Your task to perform on an android device: toggle wifi Image 0: 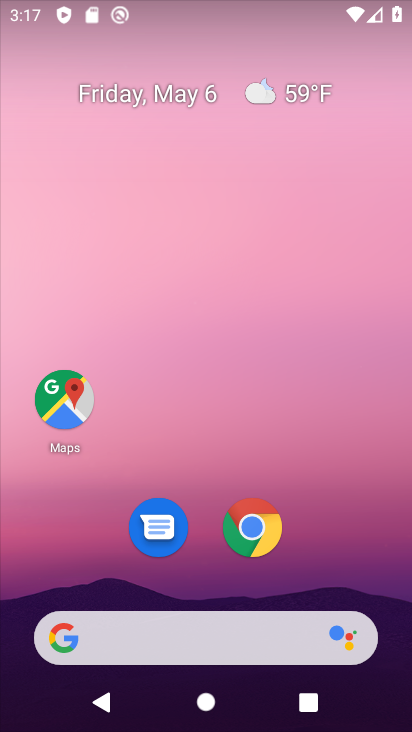
Step 0: drag from (316, 516) to (325, 120)
Your task to perform on an android device: toggle wifi Image 1: 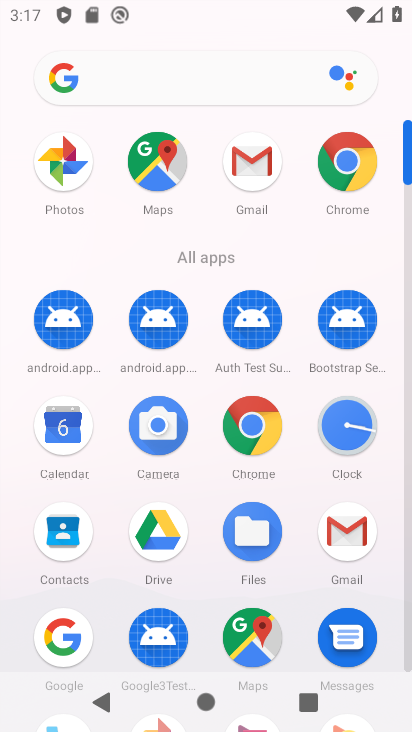
Step 1: drag from (269, 585) to (343, 75)
Your task to perform on an android device: toggle wifi Image 2: 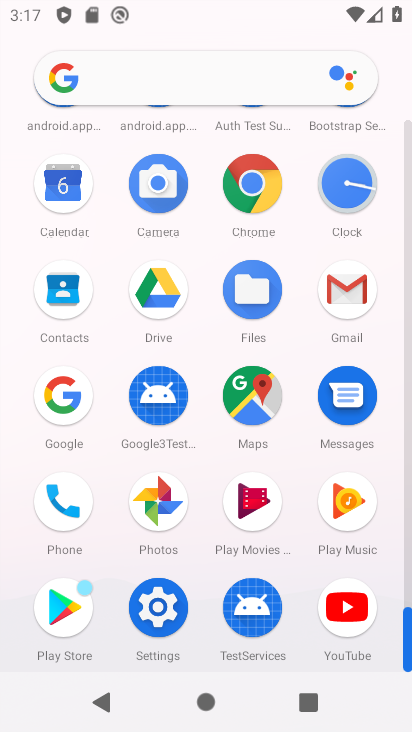
Step 2: click (157, 631)
Your task to perform on an android device: toggle wifi Image 3: 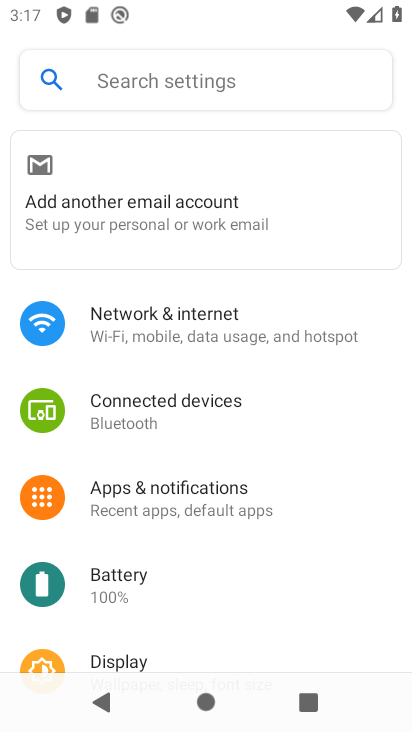
Step 3: click (172, 348)
Your task to perform on an android device: toggle wifi Image 4: 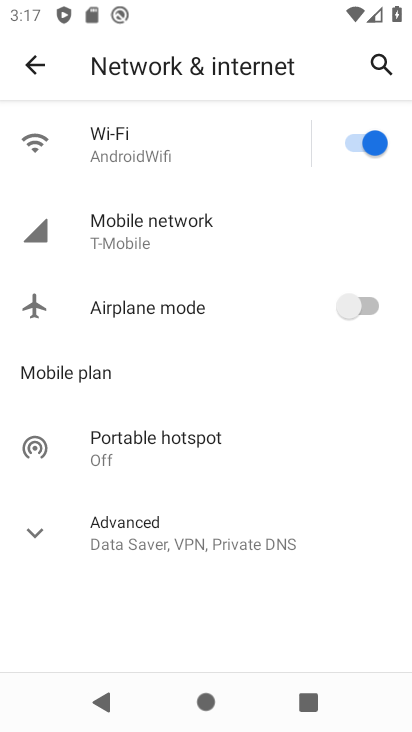
Step 4: click (166, 146)
Your task to perform on an android device: toggle wifi Image 5: 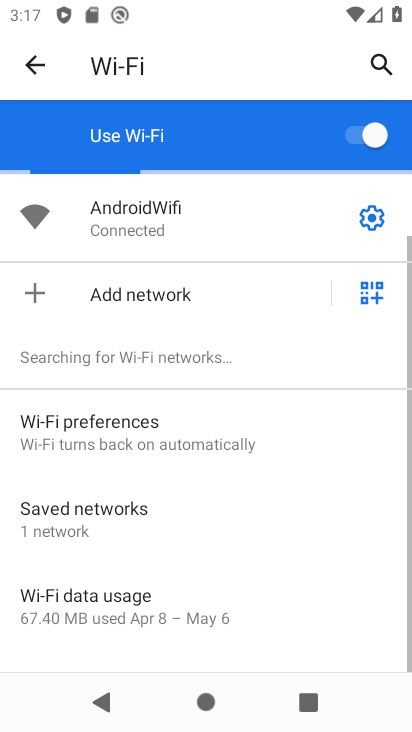
Step 5: click (365, 137)
Your task to perform on an android device: toggle wifi Image 6: 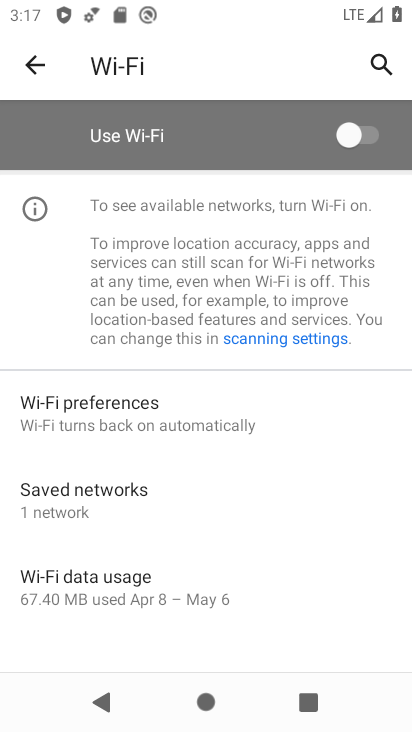
Step 6: task complete